Your task to perform on an android device: Go to Google Image 0: 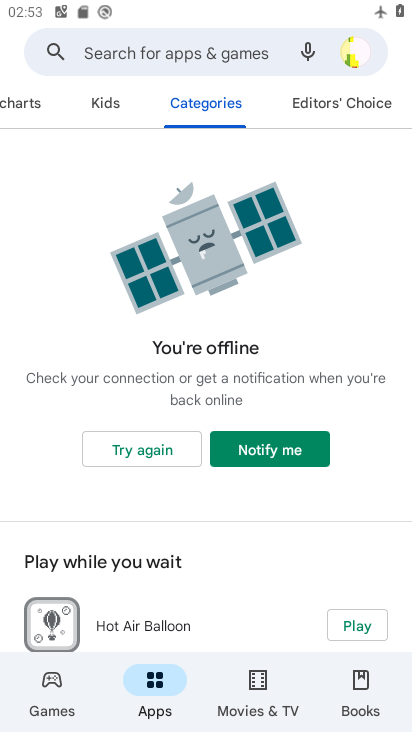
Step 0: press back button
Your task to perform on an android device: Go to Google Image 1: 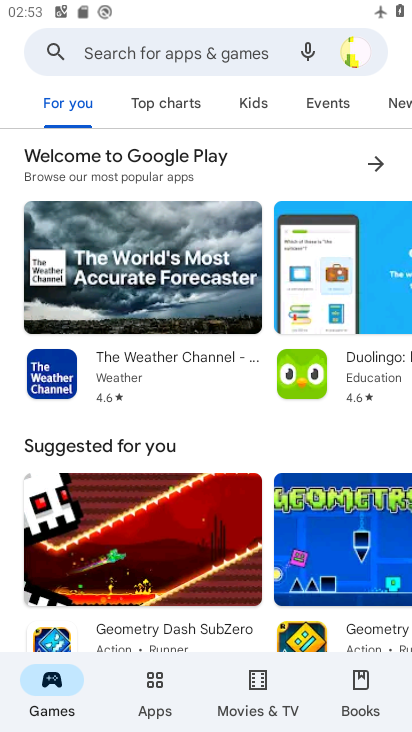
Step 1: press home button
Your task to perform on an android device: Go to Google Image 2: 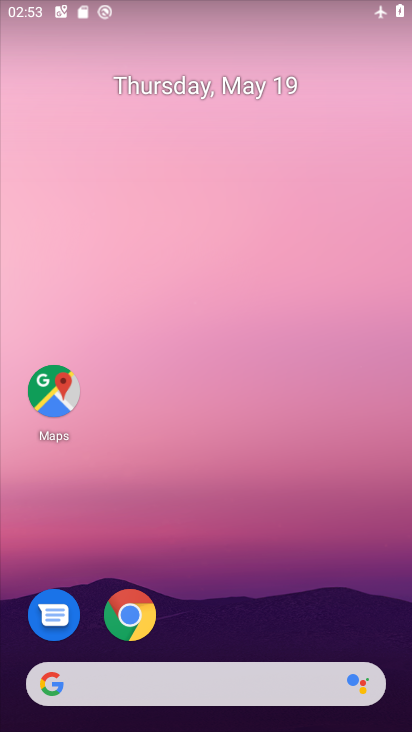
Step 2: drag from (296, 555) to (263, 51)
Your task to perform on an android device: Go to Google Image 3: 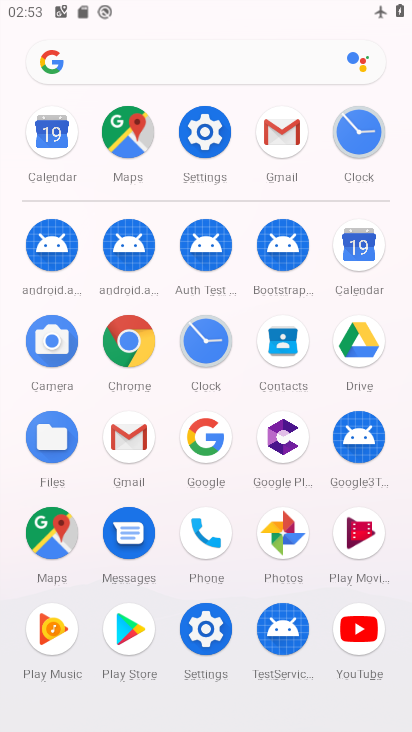
Step 3: click (126, 335)
Your task to perform on an android device: Go to Google Image 4: 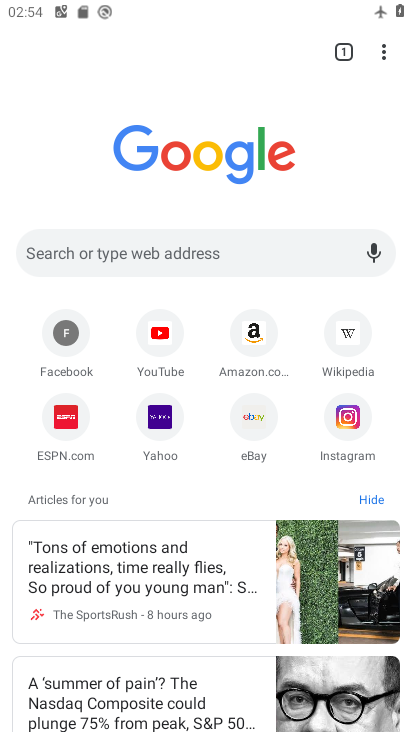
Step 4: click (225, 238)
Your task to perform on an android device: Go to Google Image 5: 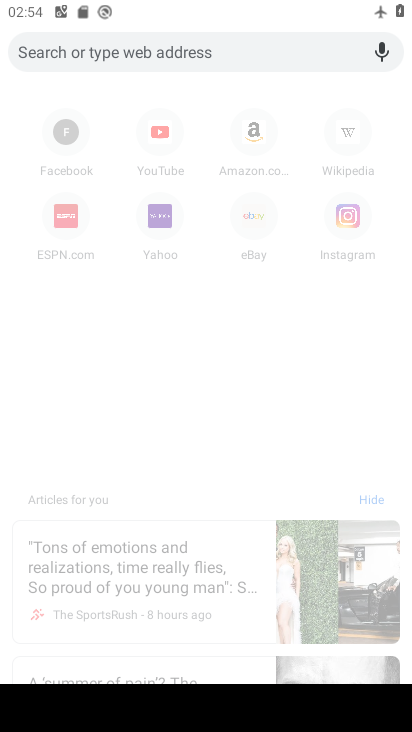
Step 5: type " Google"
Your task to perform on an android device: Go to Google Image 6: 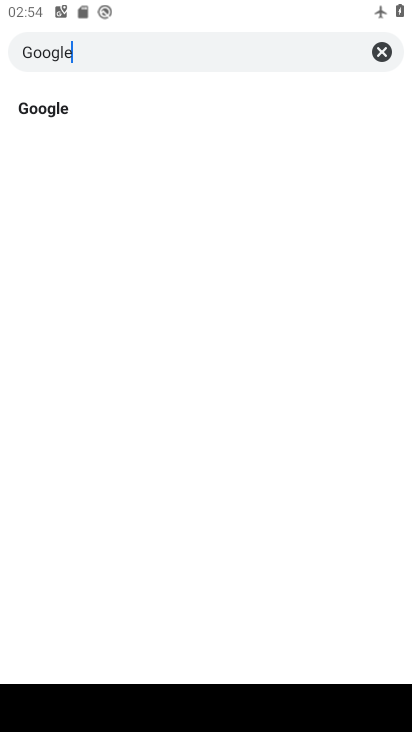
Step 6: type ""
Your task to perform on an android device: Go to Google Image 7: 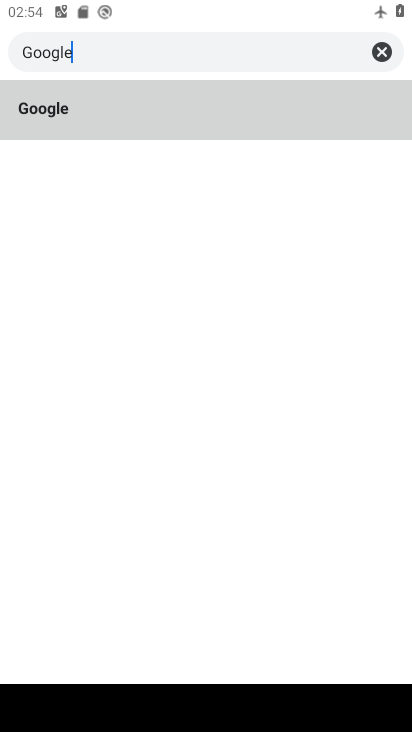
Step 7: click (112, 98)
Your task to perform on an android device: Go to Google Image 8: 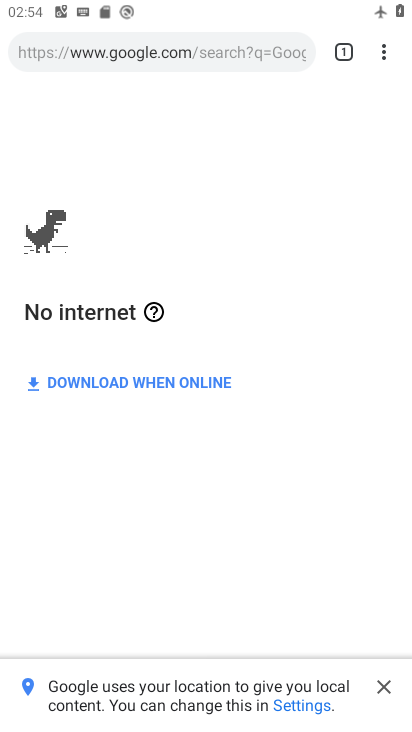
Step 8: task complete